Your task to perform on an android device: turn off location Image 0: 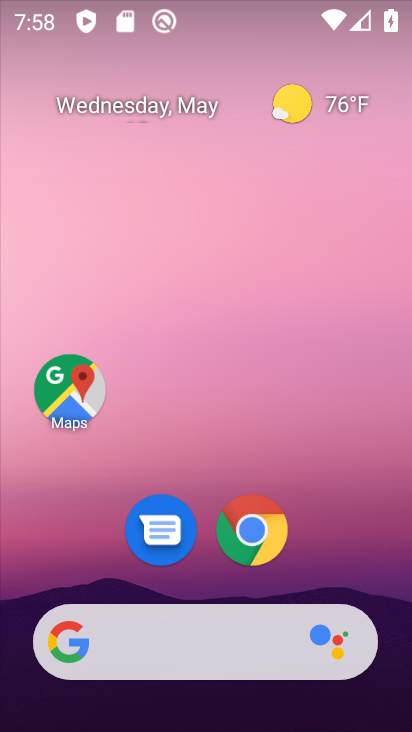
Step 0: click (317, 194)
Your task to perform on an android device: turn off location Image 1: 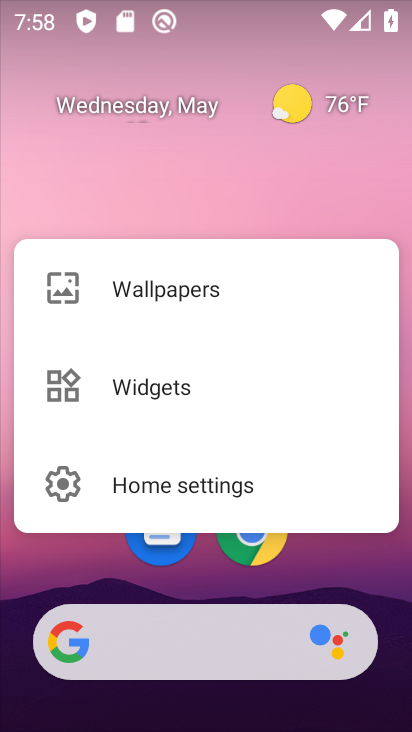
Step 1: drag from (387, 550) to (332, 185)
Your task to perform on an android device: turn off location Image 2: 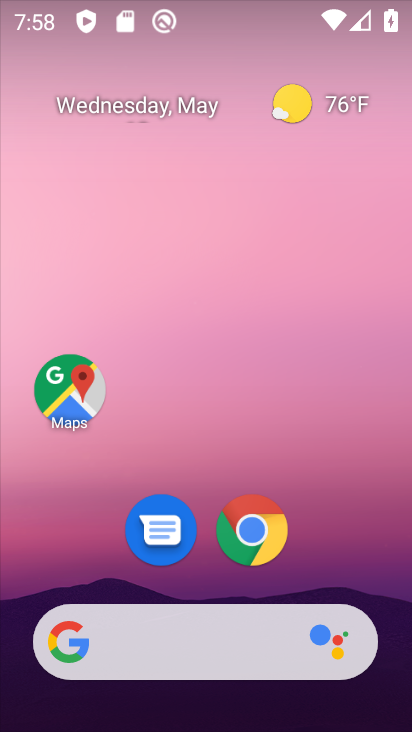
Step 2: drag from (332, 536) to (346, 216)
Your task to perform on an android device: turn off location Image 3: 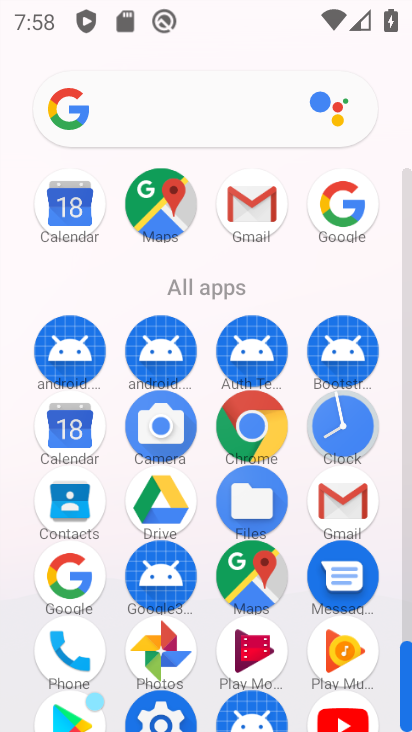
Step 3: click (166, 717)
Your task to perform on an android device: turn off location Image 4: 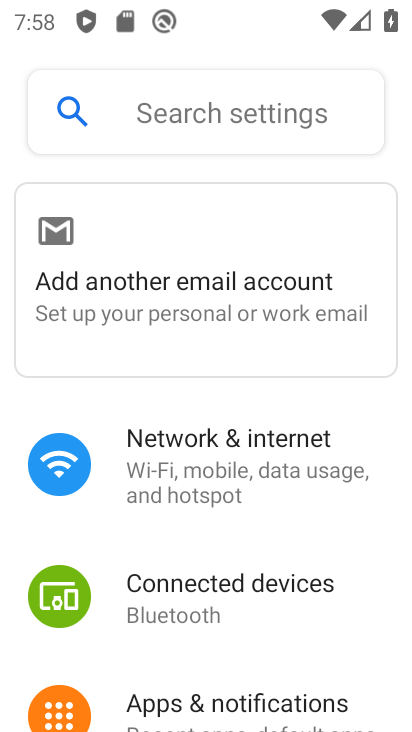
Step 4: drag from (281, 623) to (312, 303)
Your task to perform on an android device: turn off location Image 5: 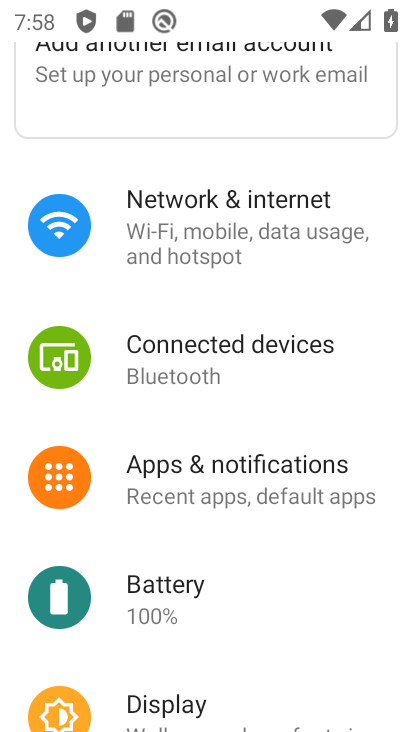
Step 5: drag from (268, 659) to (303, 366)
Your task to perform on an android device: turn off location Image 6: 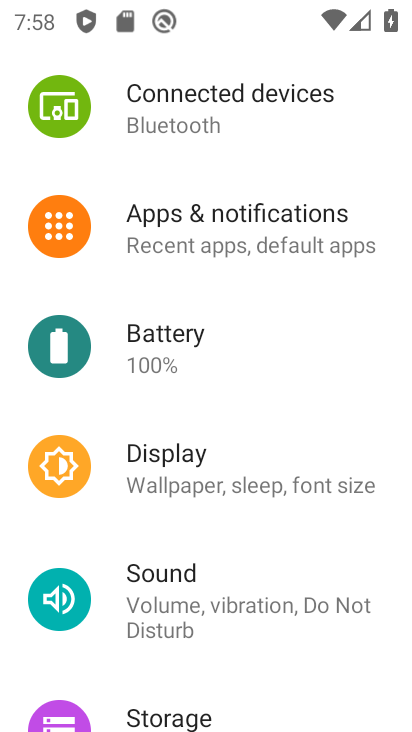
Step 6: drag from (318, 647) to (337, 340)
Your task to perform on an android device: turn off location Image 7: 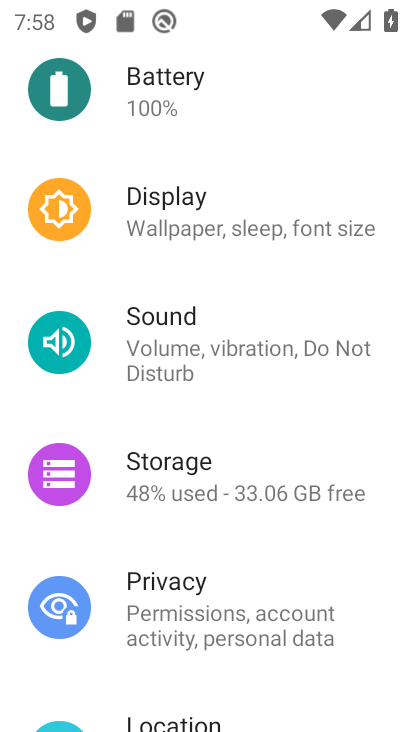
Step 7: drag from (320, 577) to (339, 302)
Your task to perform on an android device: turn off location Image 8: 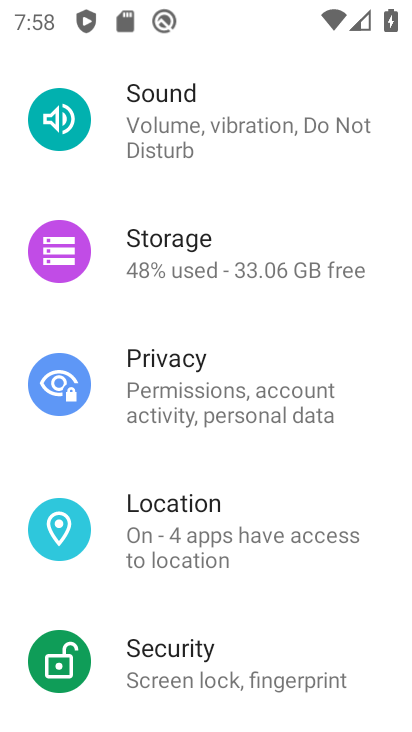
Step 8: click (231, 540)
Your task to perform on an android device: turn off location Image 9: 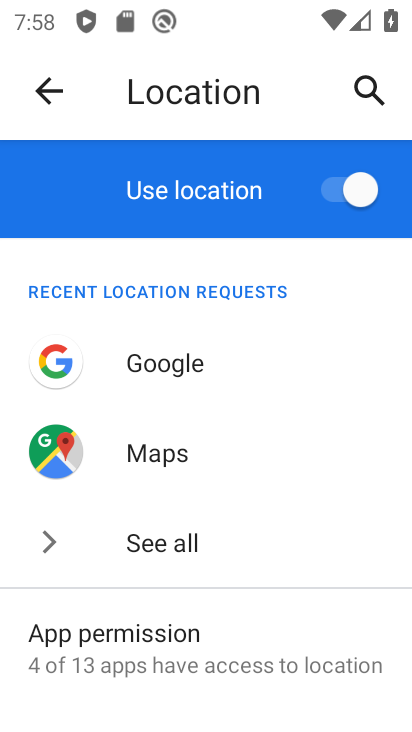
Step 9: click (337, 197)
Your task to perform on an android device: turn off location Image 10: 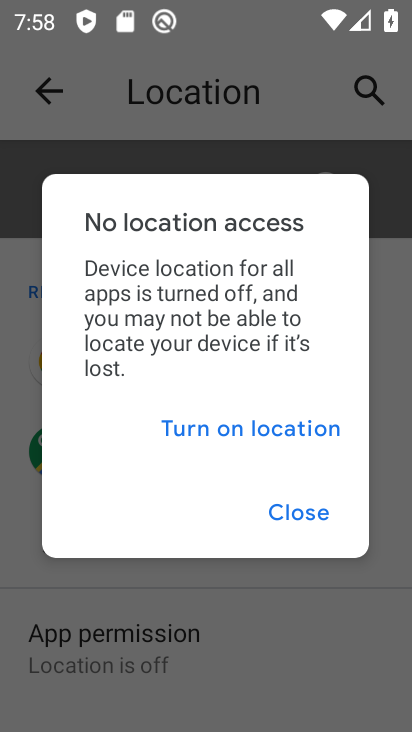
Step 10: task complete